Your task to perform on an android device: Search for pizza restaurants on Maps Image 0: 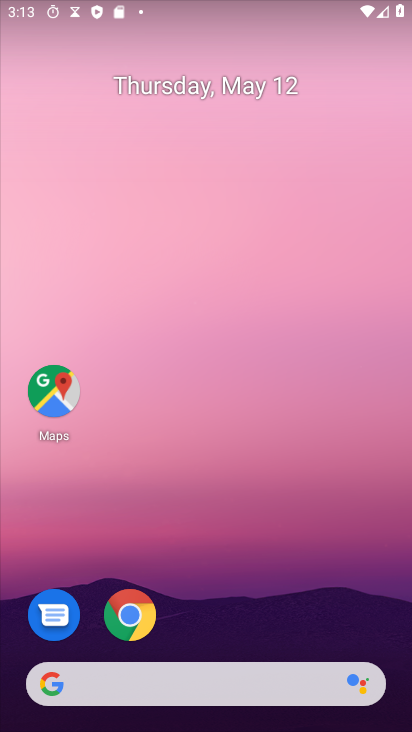
Step 0: press home button
Your task to perform on an android device: Search for pizza restaurants on Maps Image 1: 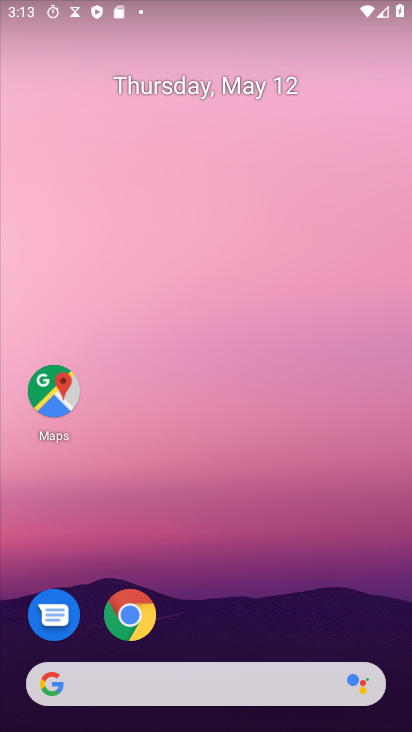
Step 1: click (64, 398)
Your task to perform on an android device: Search for pizza restaurants on Maps Image 2: 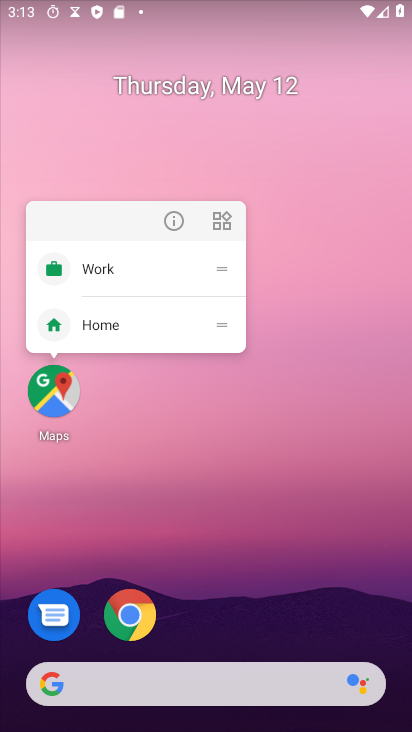
Step 2: click (41, 383)
Your task to perform on an android device: Search for pizza restaurants on Maps Image 3: 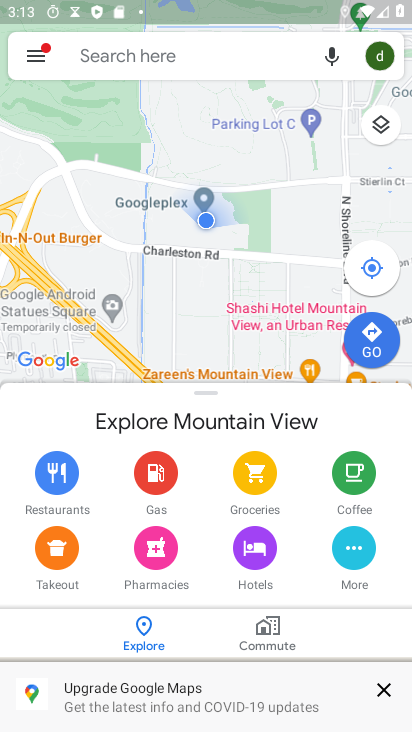
Step 3: click (134, 40)
Your task to perform on an android device: Search for pizza restaurants on Maps Image 4: 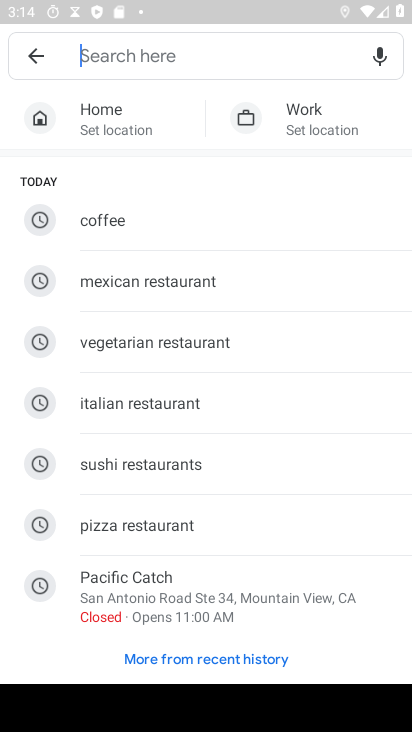
Step 4: click (122, 528)
Your task to perform on an android device: Search for pizza restaurants on Maps Image 5: 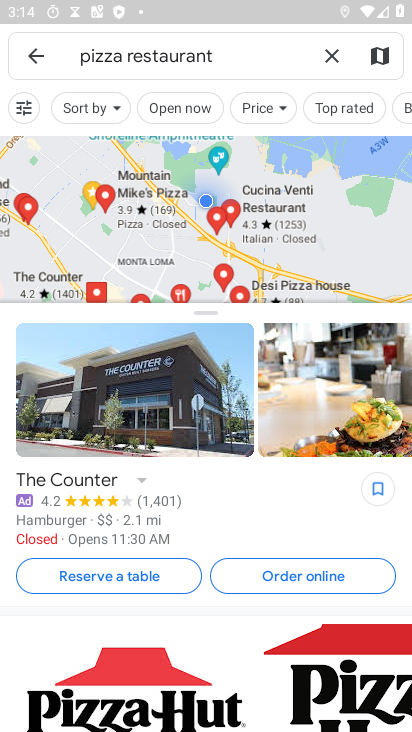
Step 5: task complete